Your task to perform on an android device: Is it going to rain tomorrow? Image 0: 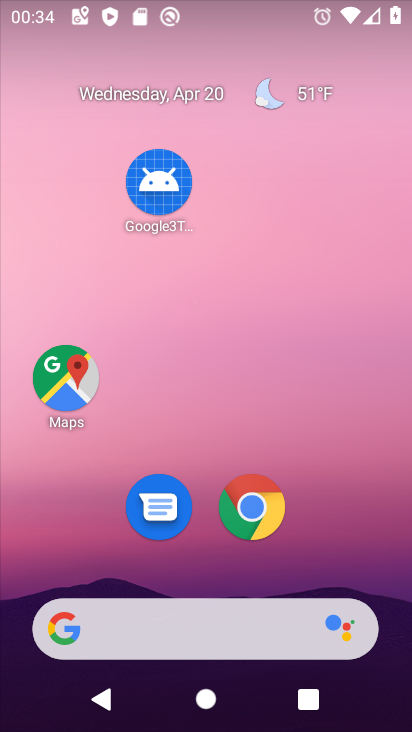
Step 0: click (262, 96)
Your task to perform on an android device: Is it going to rain tomorrow? Image 1: 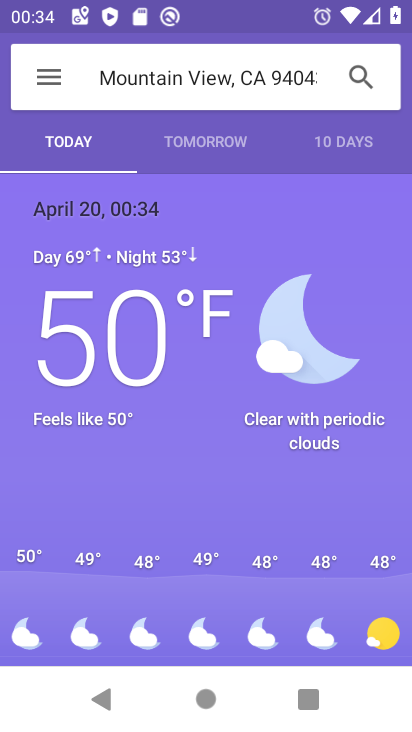
Step 1: click (202, 146)
Your task to perform on an android device: Is it going to rain tomorrow? Image 2: 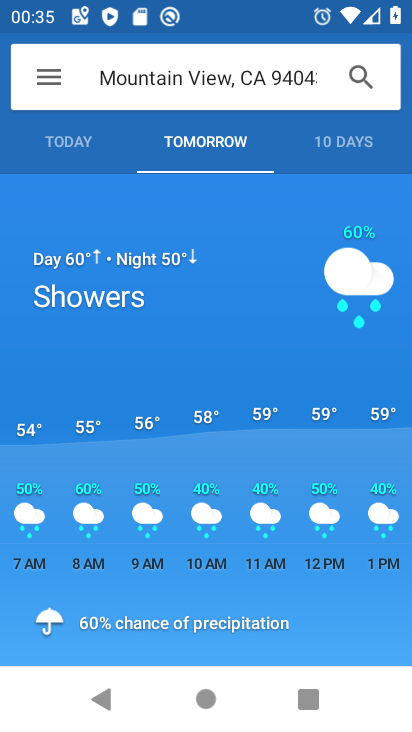
Step 2: task complete